Your task to perform on an android device: Open privacy settings Image 0: 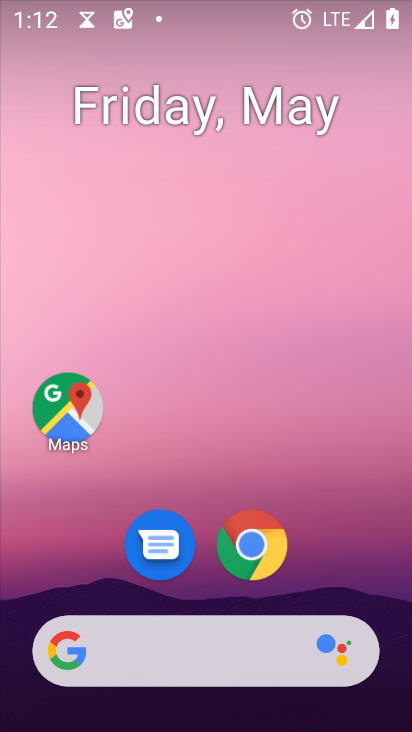
Step 0: drag from (366, 556) to (295, 86)
Your task to perform on an android device: Open privacy settings Image 1: 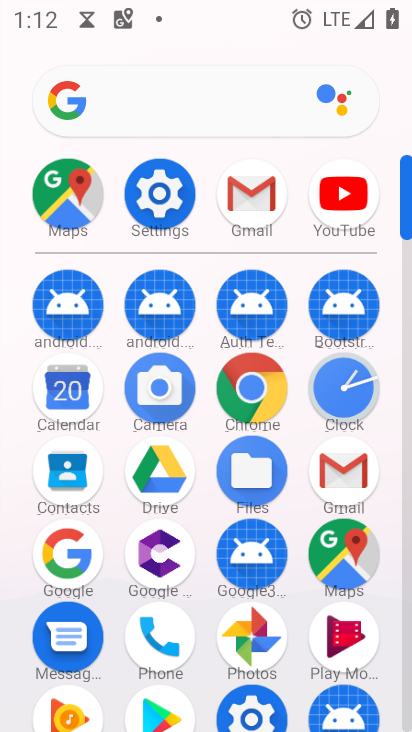
Step 1: click (144, 192)
Your task to perform on an android device: Open privacy settings Image 2: 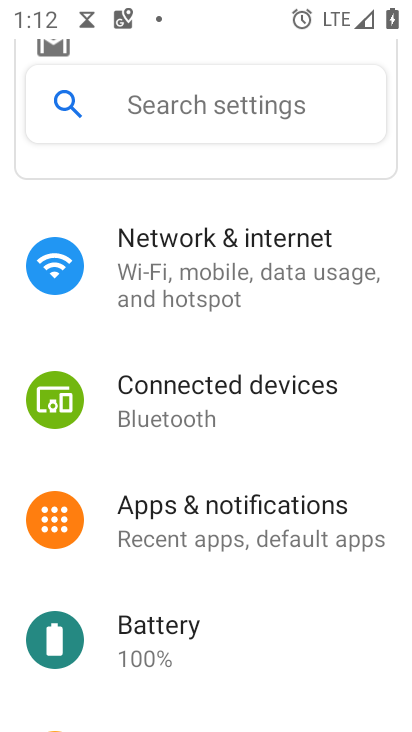
Step 2: drag from (265, 628) to (245, 273)
Your task to perform on an android device: Open privacy settings Image 3: 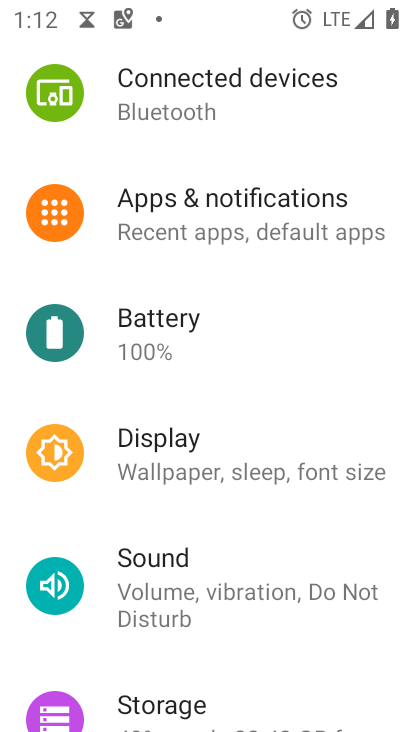
Step 3: drag from (273, 609) to (167, 110)
Your task to perform on an android device: Open privacy settings Image 4: 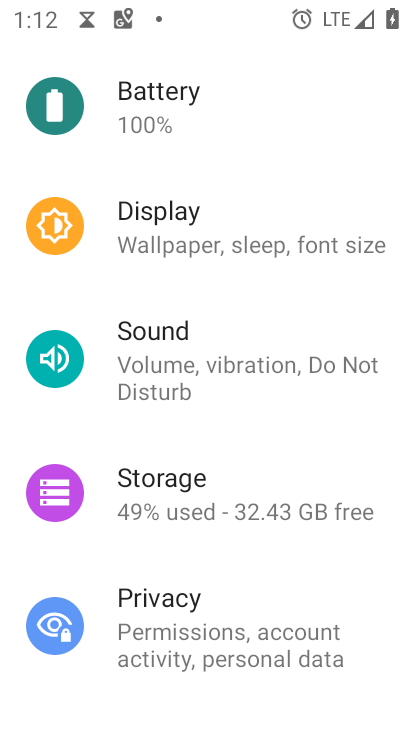
Step 4: click (183, 598)
Your task to perform on an android device: Open privacy settings Image 5: 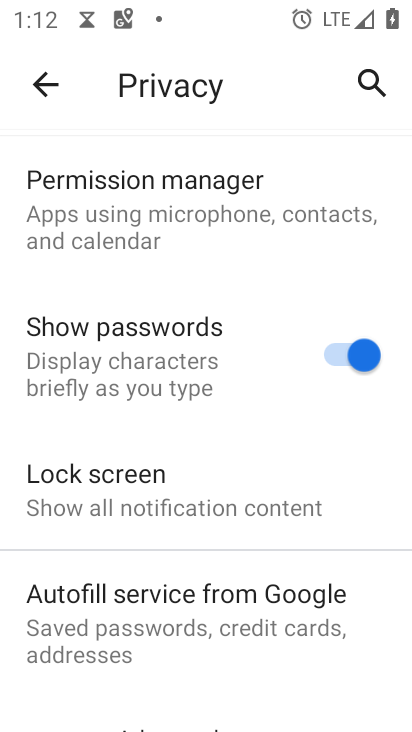
Step 5: task complete